Your task to perform on an android device: Check the weather Image 0: 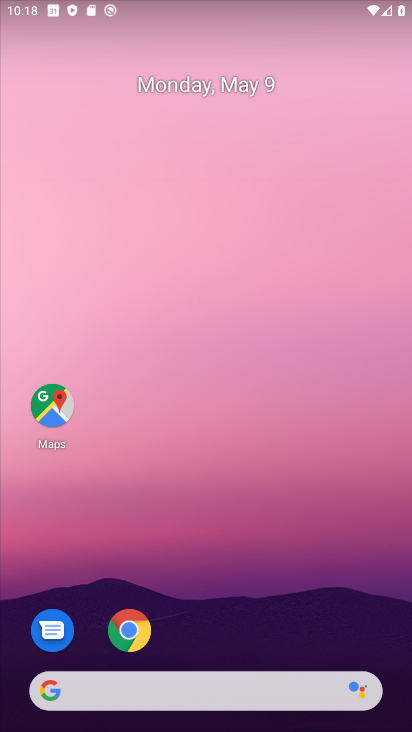
Step 0: drag from (233, 633) to (255, 98)
Your task to perform on an android device: Check the weather Image 1: 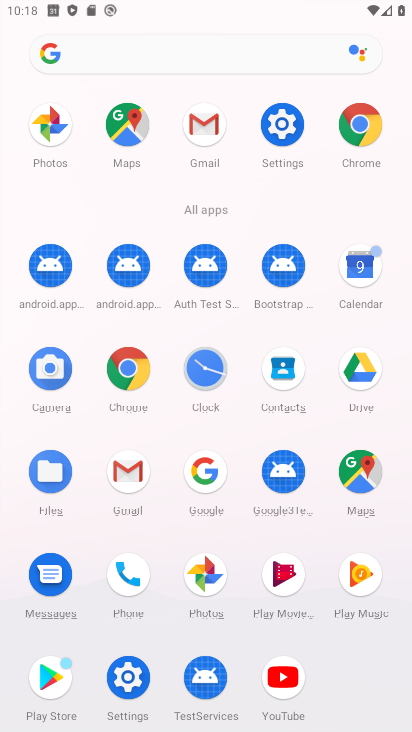
Step 1: click (198, 466)
Your task to perform on an android device: Check the weather Image 2: 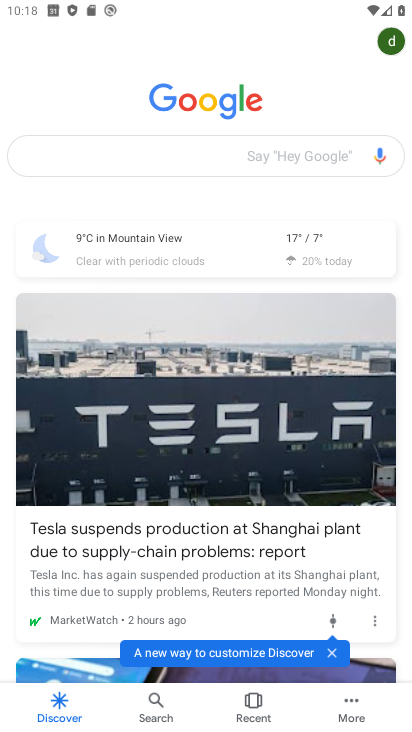
Step 2: click (167, 239)
Your task to perform on an android device: Check the weather Image 3: 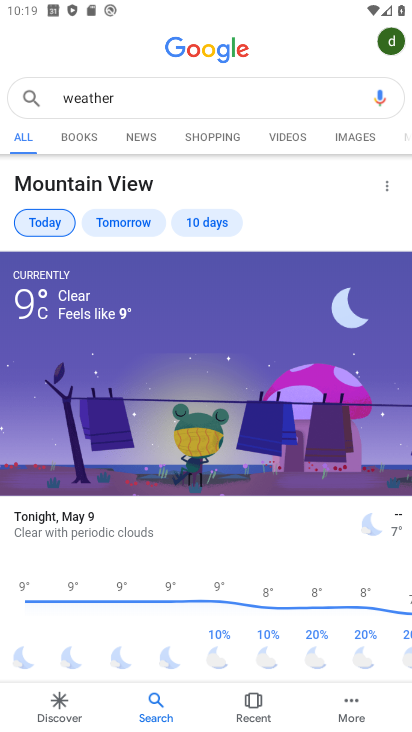
Step 3: task complete